Your task to perform on an android device: open app "ColorNote Notepad Notes" (install if not already installed) Image 0: 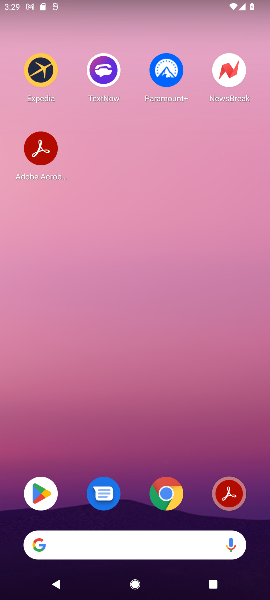
Step 0: click (44, 493)
Your task to perform on an android device: open app "ColorNote Notepad Notes" (install if not already installed) Image 1: 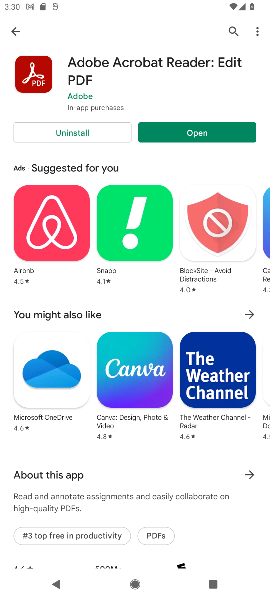
Step 1: click (13, 23)
Your task to perform on an android device: open app "ColorNote Notepad Notes" (install if not already installed) Image 2: 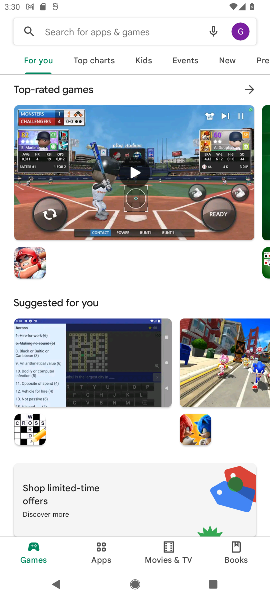
Step 2: click (92, 24)
Your task to perform on an android device: open app "ColorNote Notepad Notes" (install if not already installed) Image 3: 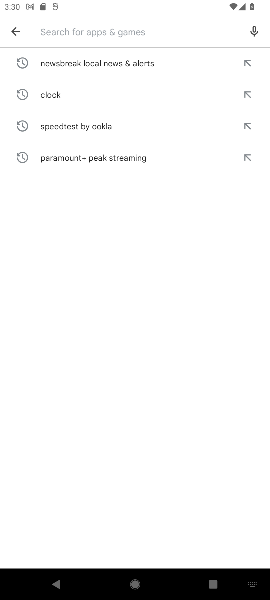
Step 3: type "ColorNote Notepad Notes"
Your task to perform on an android device: open app "ColorNote Notepad Notes" (install if not already installed) Image 4: 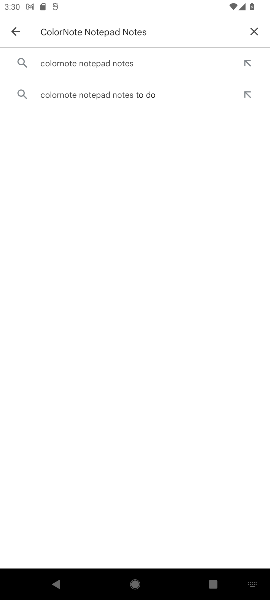
Step 4: click (128, 64)
Your task to perform on an android device: open app "ColorNote Notepad Notes" (install if not already installed) Image 5: 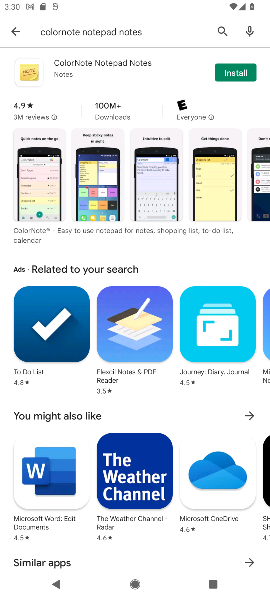
Step 5: click (222, 79)
Your task to perform on an android device: open app "ColorNote Notepad Notes" (install if not already installed) Image 6: 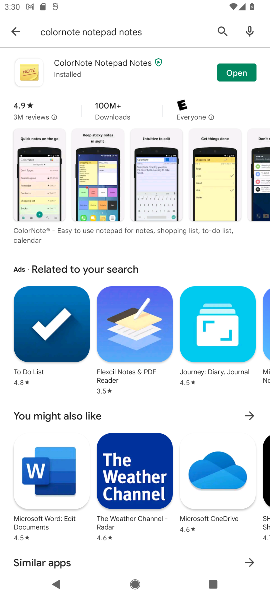
Step 6: click (234, 74)
Your task to perform on an android device: open app "ColorNote Notepad Notes" (install if not already installed) Image 7: 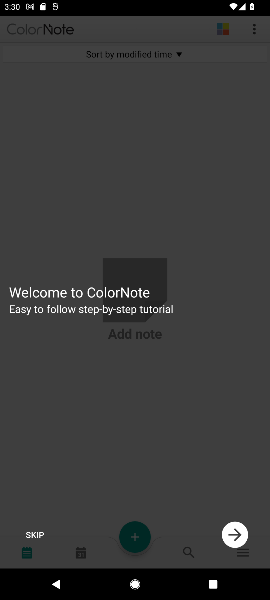
Step 7: click (236, 536)
Your task to perform on an android device: open app "ColorNote Notepad Notes" (install if not already installed) Image 8: 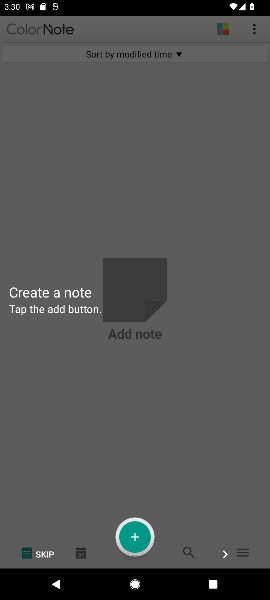
Step 8: click (160, 449)
Your task to perform on an android device: open app "ColorNote Notepad Notes" (install if not already installed) Image 9: 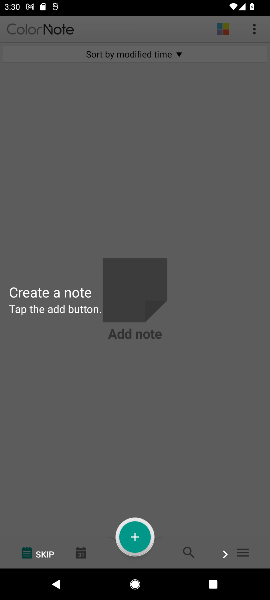
Step 9: click (49, 556)
Your task to perform on an android device: open app "ColorNote Notepad Notes" (install if not already installed) Image 10: 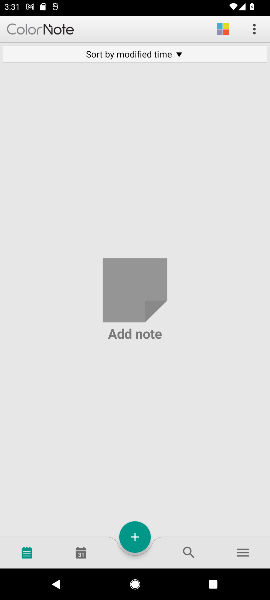
Step 10: task complete